Your task to perform on an android device: manage bookmarks in the chrome app Image 0: 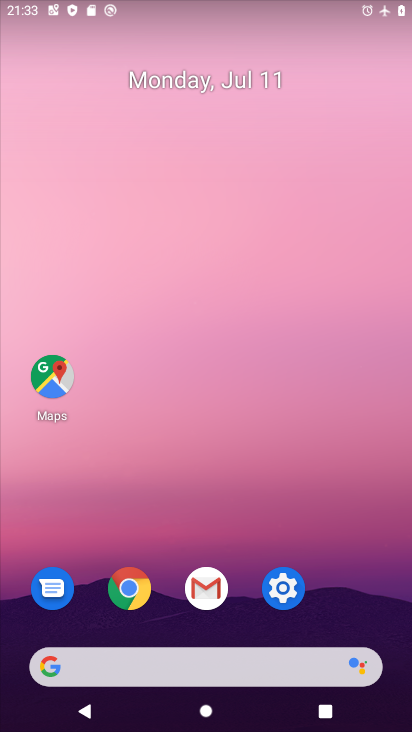
Step 0: click (135, 588)
Your task to perform on an android device: manage bookmarks in the chrome app Image 1: 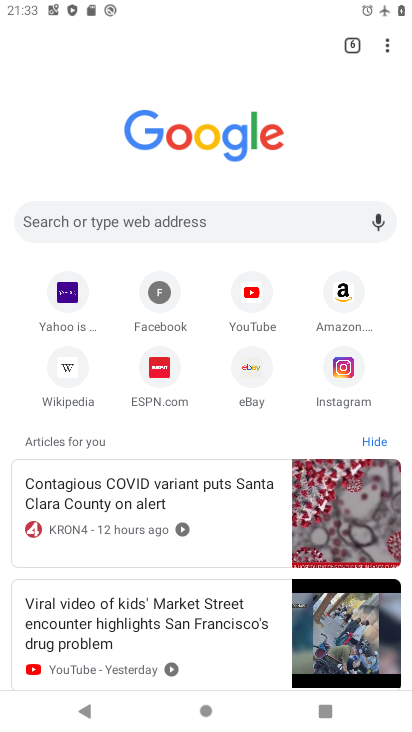
Step 1: click (394, 49)
Your task to perform on an android device: manage bookmarks in the chrome app Image 2: 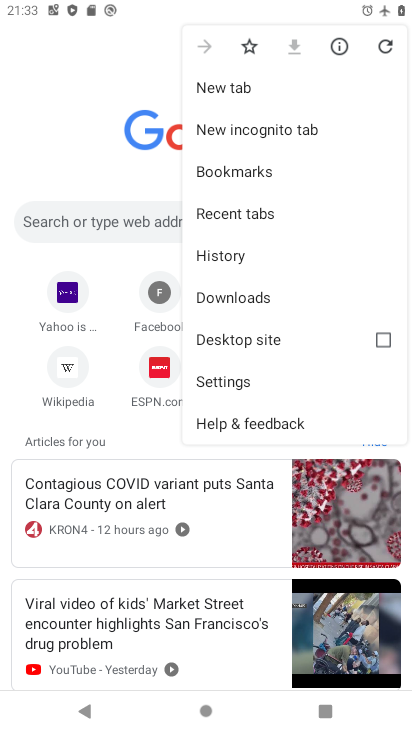
Step 2: click (266, 173)
Your task to perform on an android device: manage bookmarks in the chrome app Image 3: 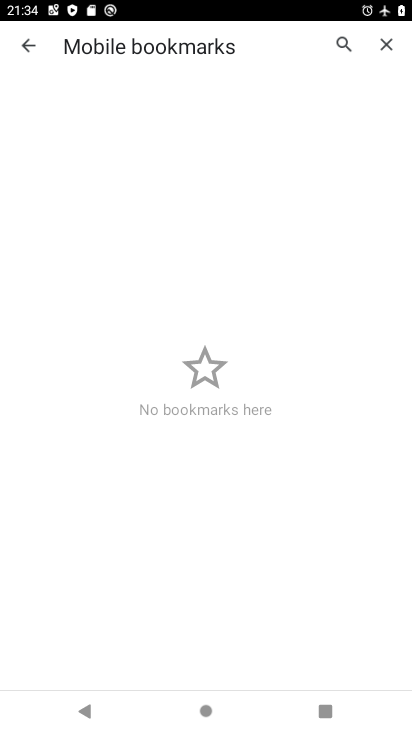
Step 3: task complete